Your task to perform on an android device: Open the web browser Image 0: 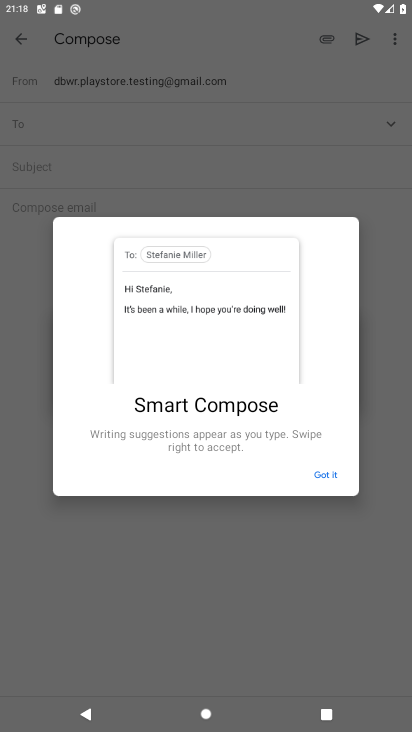
Step 0: press home button
Your task to perform on an android device: Open the web browser Image 1: 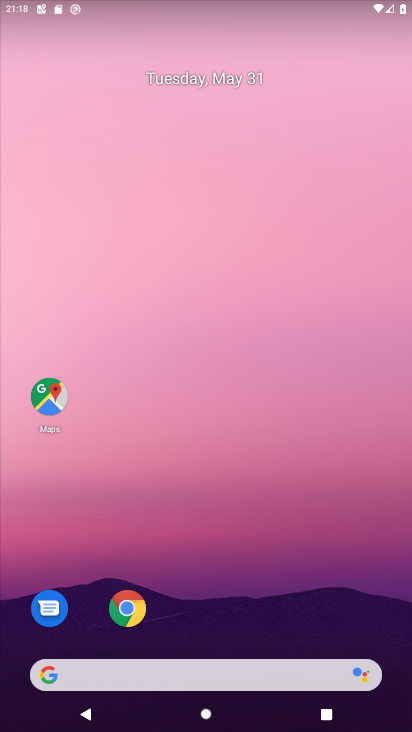
Step 1: click (129, 609)
Your task to perform on an android device: Open the web browser Image 2: 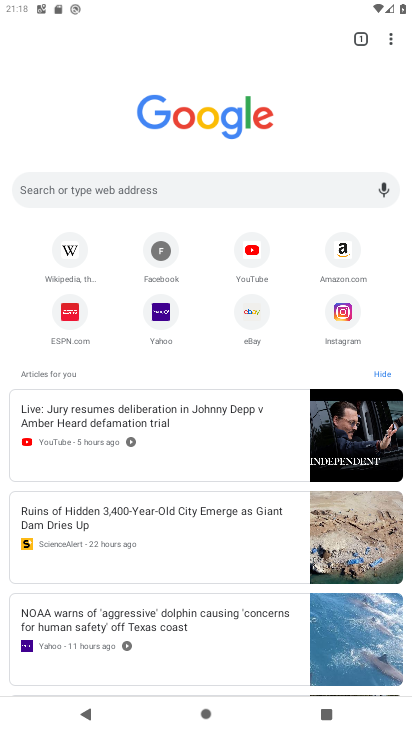
Step 2: task complete